Your task to perform on an android device: make emails show in primary in the gmail app Image 0: 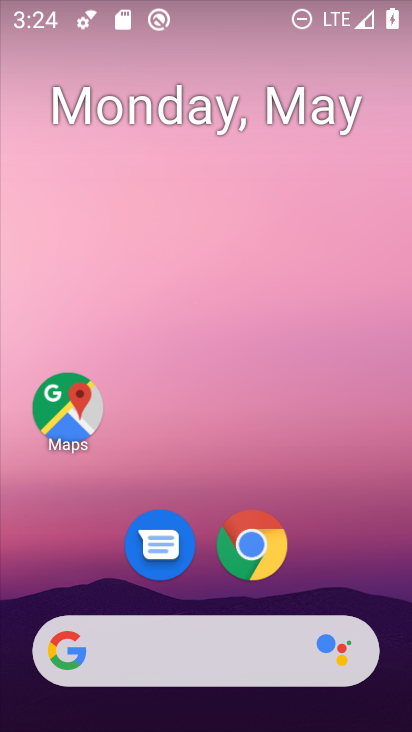
Step 0: drag from (317, 583) to (297, 145)
Your task to perform on an android device: make emails show in primary in the gmail app Image 1: 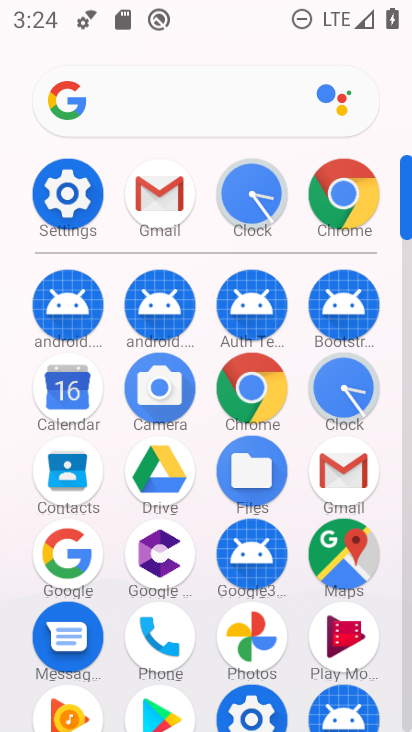
Step 1: click (337, 464)
Your task to perform on an android device: make emails show in primary in the gmail app Image 2: 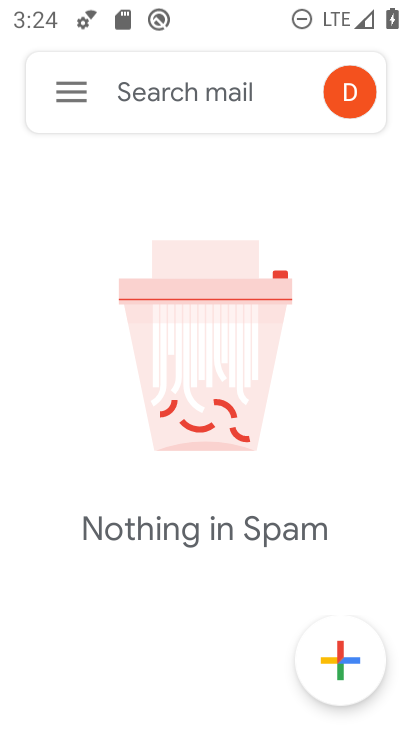
Step 2: click (61, 92)
Your task to perform on an android device: make emails show in primary in the gmail app Image 3: 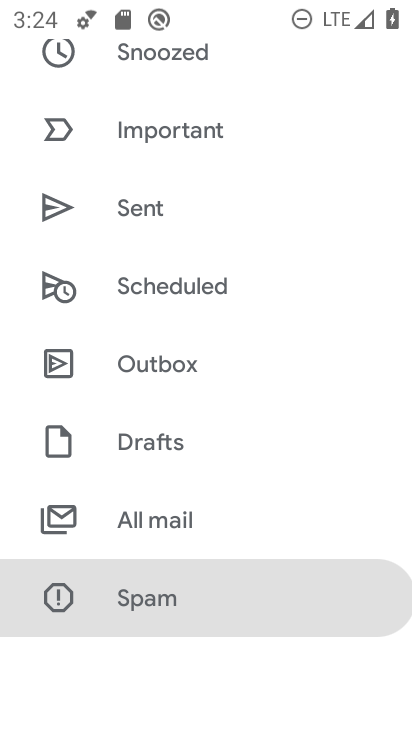
Step 3: drag from (196, 121) to (211, 626)
Your task to perform on an android device: make emails show in primary in the gmail app Image 4: 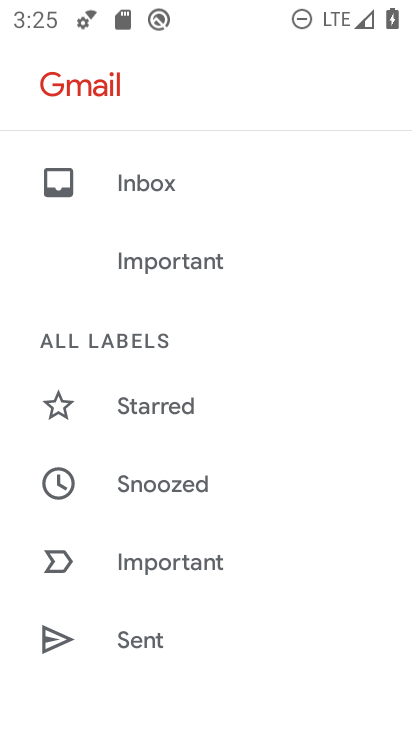
Step 4: drag from (183, 625) to (192, 297)
Your task to perform on an android device: make emails show in primary in the gmail app Image 5: 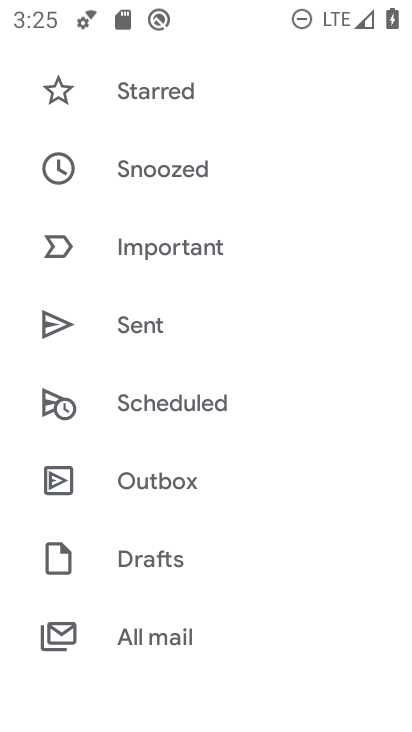
Step 5: drag from (241, 608) to (241, 330)
Your task to perform on an android device: make emails show in primary in the gmail app Image 6: 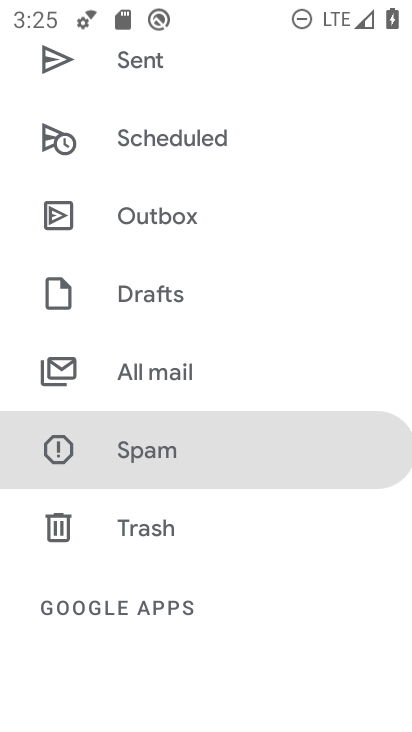
Step 6: drag from (221, 609) to (245, 214)
Your task to perform on an android device: make emails show in primary in the gmail app Image 7: 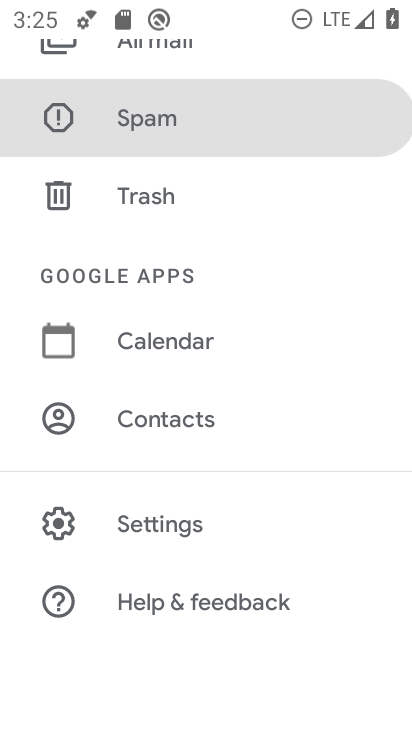
Step 7: click (153, 518)
Your task to perform on an android device: make emails show in primary in the gmail app Image 8: 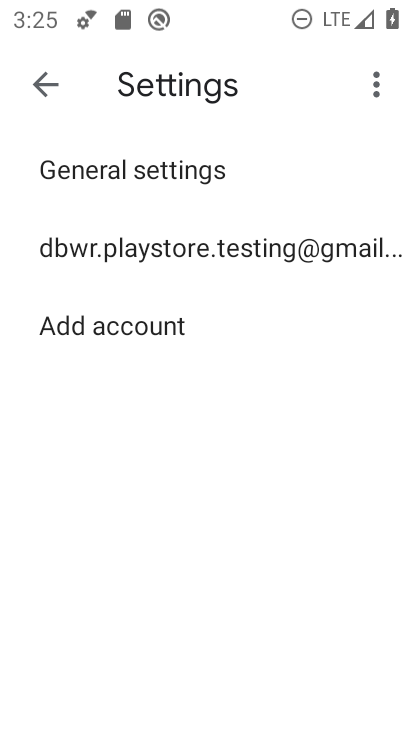
Step 8: click (122, 233)
Your task to perform on an android device: make emails show in primary in the gmail app Image 9: 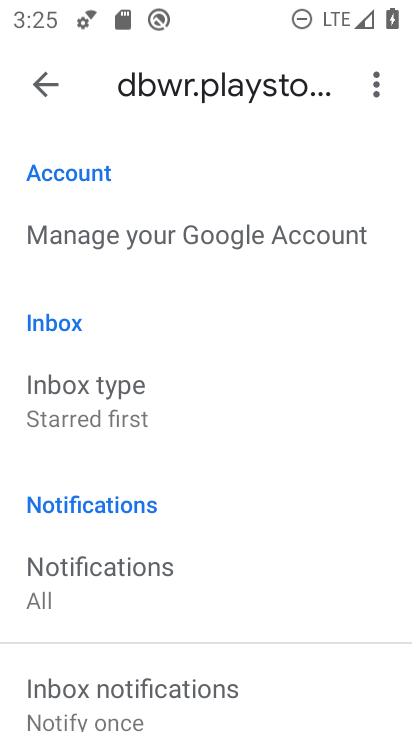
Step 9: drag from (148, 675) to (203, 695)
Your task to perform on an android device: make emails show in primary in the gmail app Image 10: 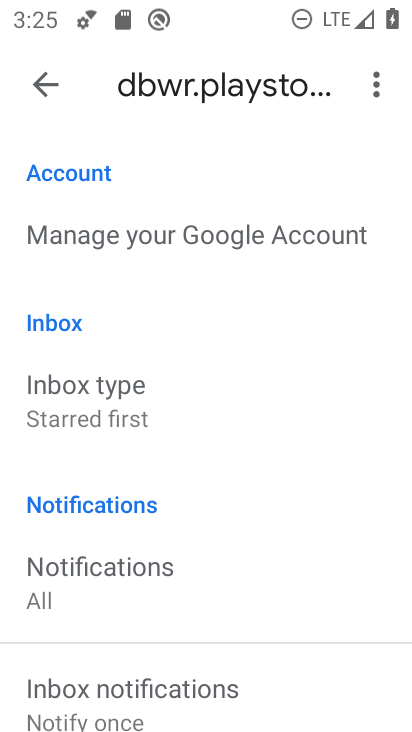
Step 10: click (132, 404)
Your task to perform on an android device: make emails show in primary in the gmail app Image 11: 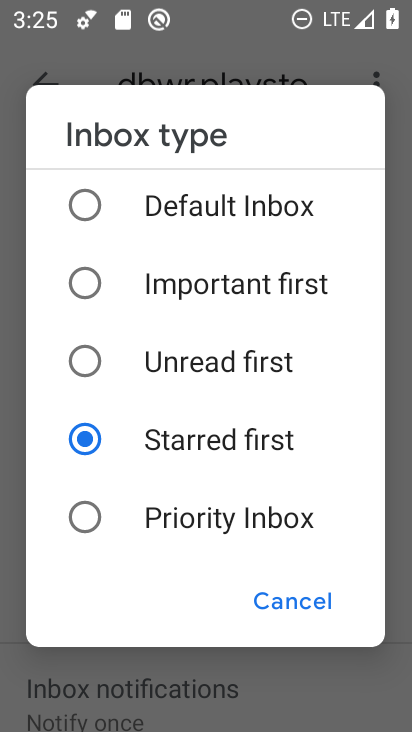
Step 11: click (209, 219)
Your task to perform on an android device: make emails show in primary in the gmail app Image 12: 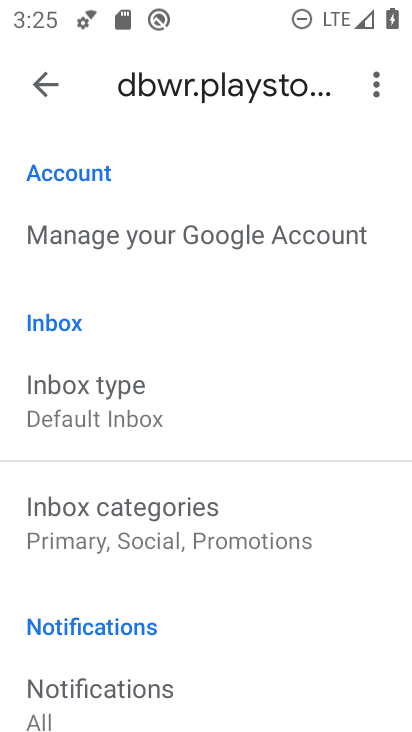
Step 12: task complete